Your task to perform on an android device: change notifications settings Image 0: 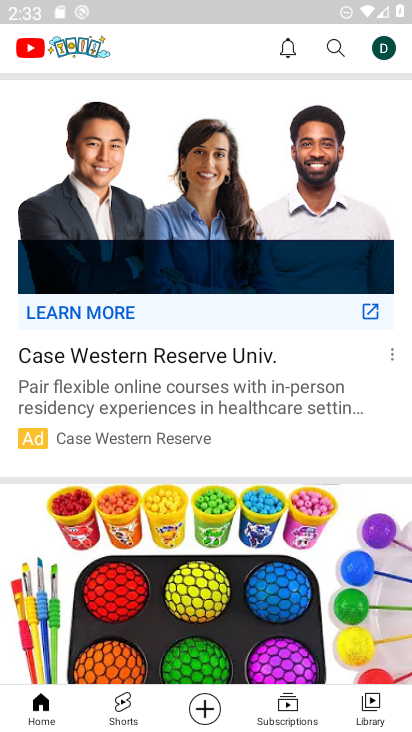
Step 0: press home button
Your task to perform on an android device: change notifications settings Image 1: 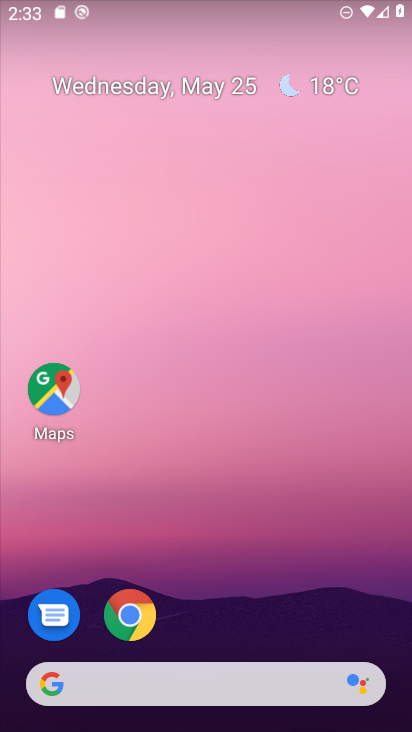
Step 1: drag from (245, 578) to (283, 33)
Your task to perform on an android device: change notifications settings Image 2: 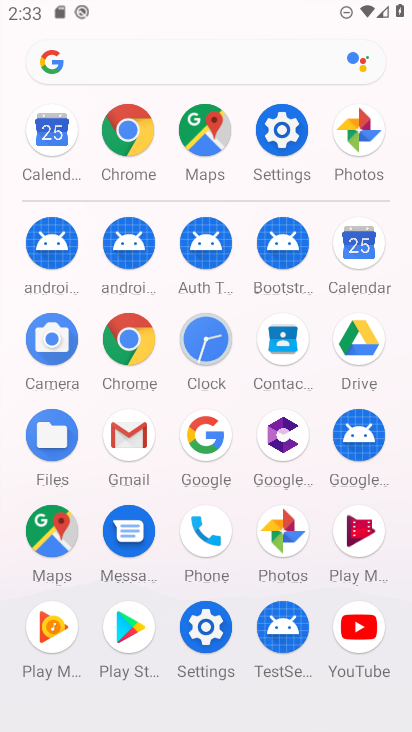
Step 2: click (283, 114)
Your task to perform on an android device: change notifications settings Image 3: 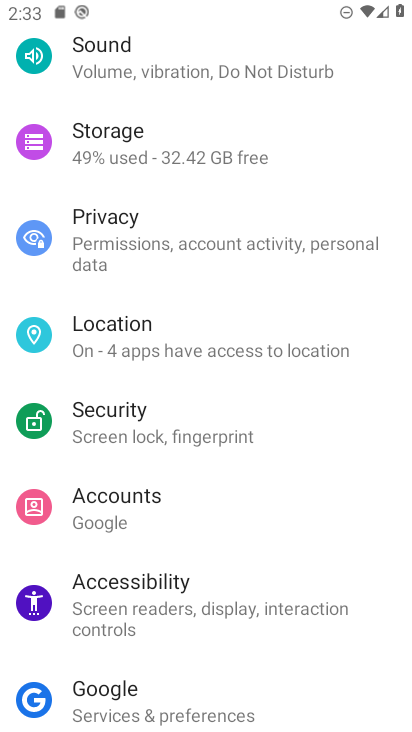
Step 3: drag from (240, 405) to (211, 652)
Your task to perform on an android device: change notifications settings Image 4: 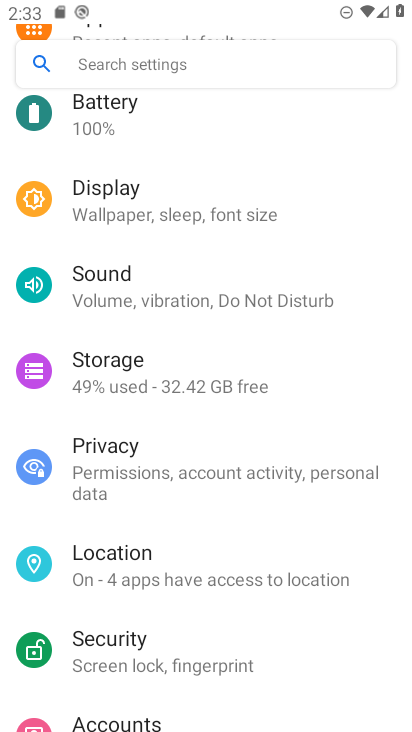
Step 4: drag from (244, 278) to (219, 573)
Your task to perform on an android device: change notifications settings Image 5: 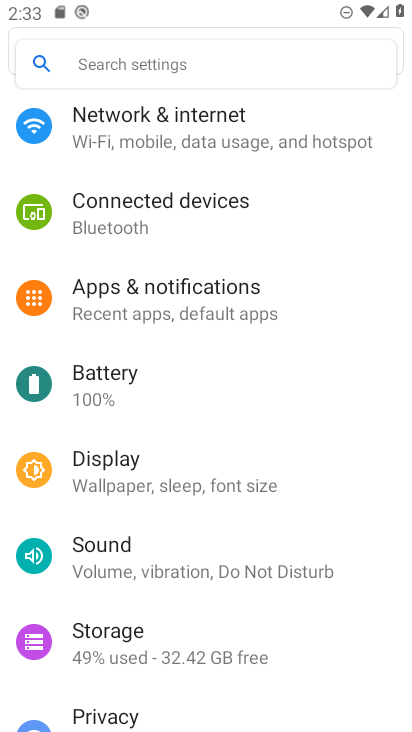
Step 5: click (246, 306)
Your task to perform on an android device: change notifications settings Image 6: 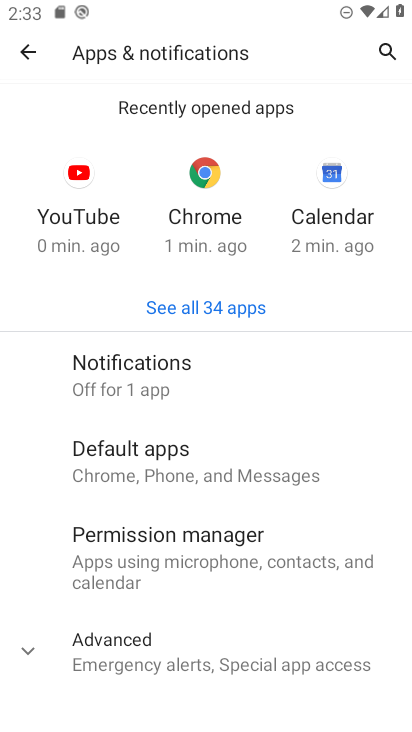
Step 6: click (246, 387)
Your task to perform on an android device: change notifications settings Image 7: 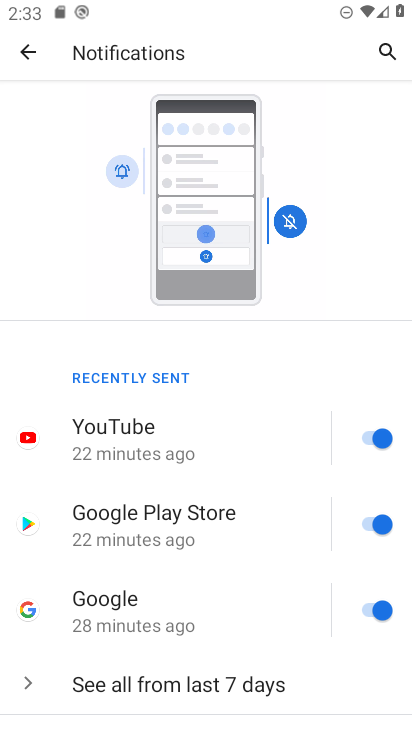
Step 7: click (218, 677)
Your task to perform on an android device: change notifications settings Image 8: 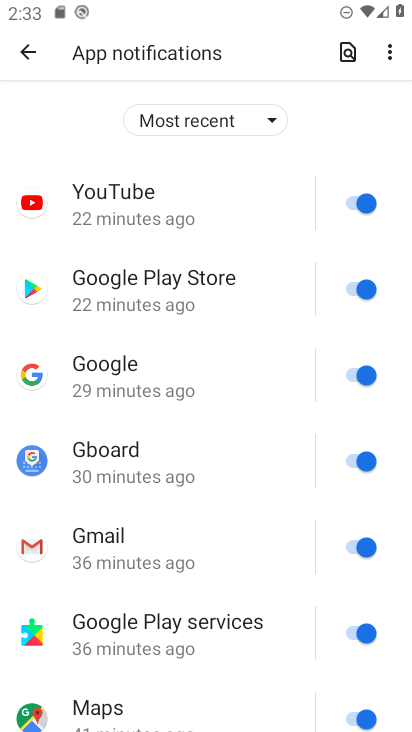
Step 8: click (362, 198)
Your task to perform on an android device: change notifications settings Image 9: 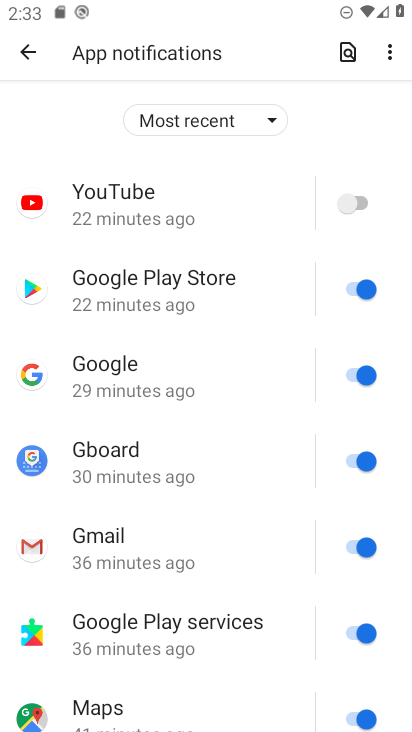
Step 9: click (358, 283)
Your task to perform on an android device: change notifications settings Image 10: 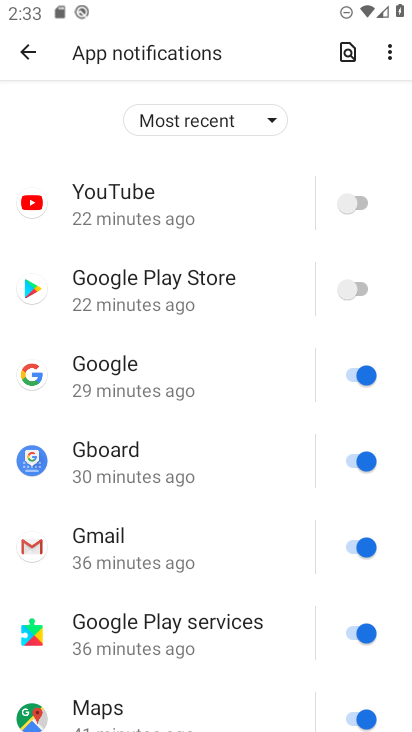
Step 10: click (363, 377)
Your task to perform on an android device: change notifications settings Image 11: 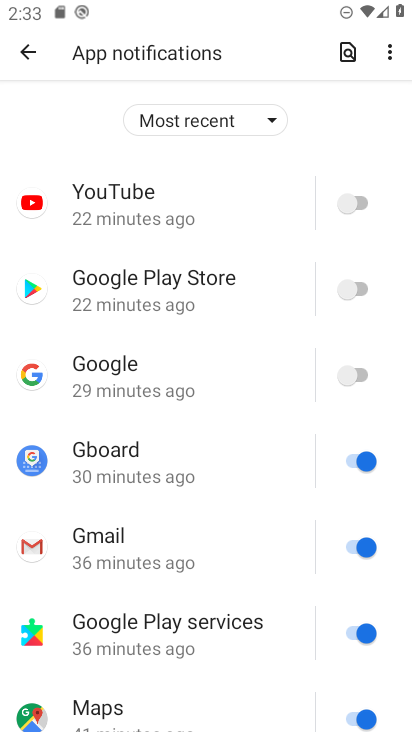
Step 11: click (362, 460)
Your task to perform on an android device: change notifications settings Image 12: 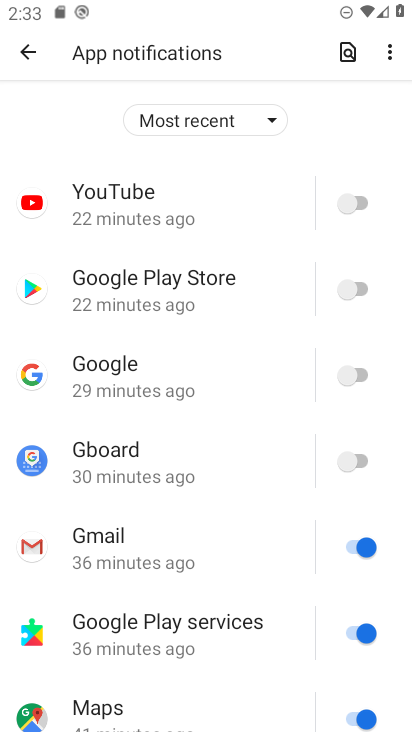
Step 12: click (357, 543)
Your task to perform on an android device: change notifications settings Image 13: 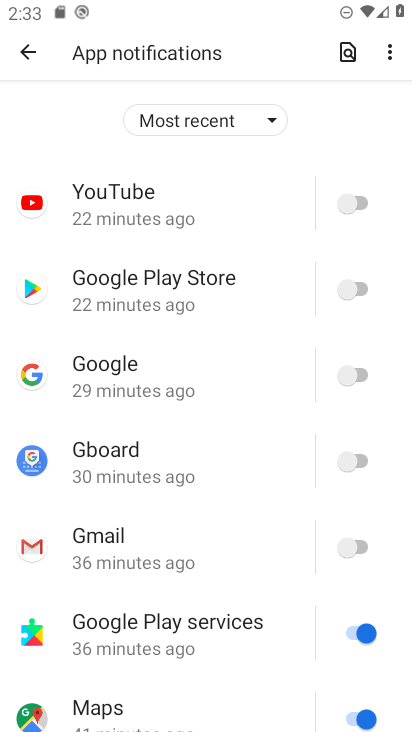
Step 13: drag from (232, 598) to (277, 61)
Your task to perform on an android device: change notifications settings Image 14: 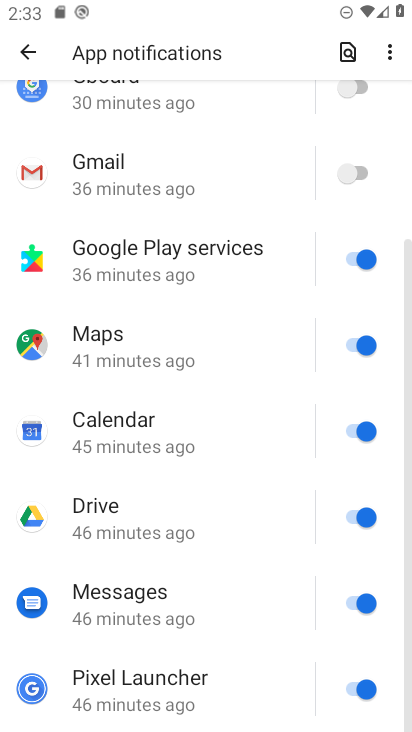
Step 14: click (354, 250)
Your task to perform on an android device: change notifications settings Image 15: 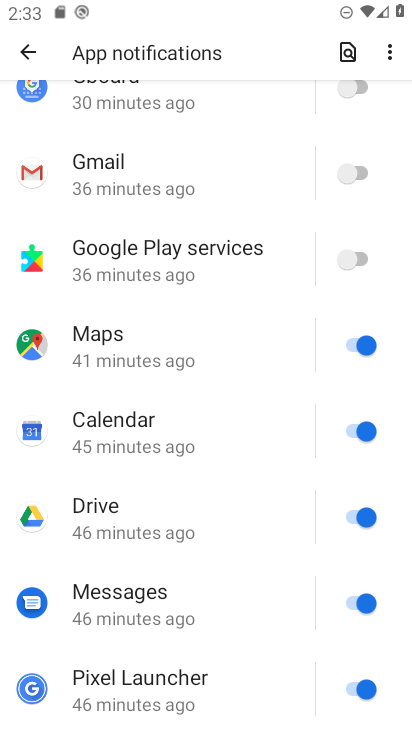
Step 15: click (351, 333)
Your task to perform on an android device: change notifications settings Image 16: 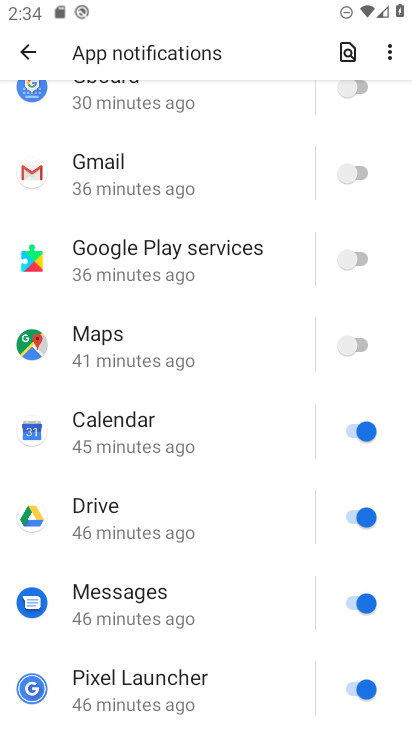
Step 16: click (362, 410)
Your task to perform on an android device: change notifications settings Image 17: 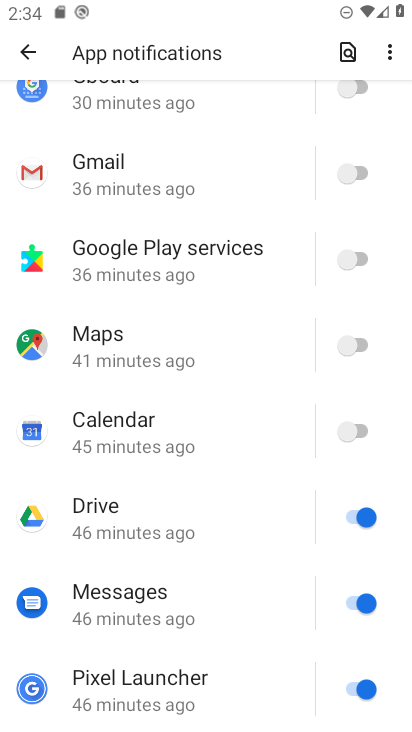
Step 17: click (357, 517)
Your task to perform on an android device: change notifications settings Image 18: 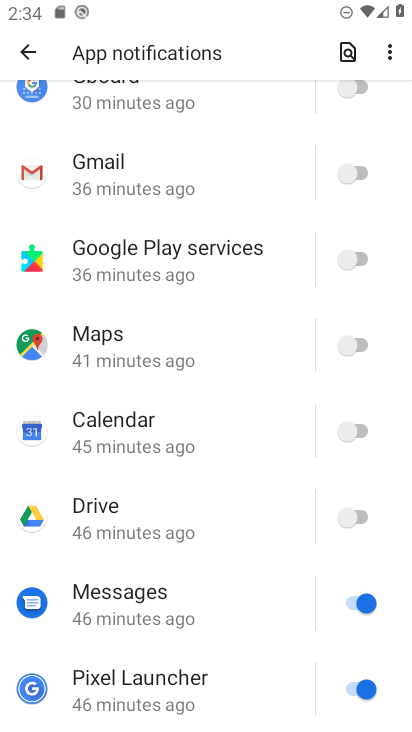
Step 18: click (358, 595)
Your task to perform on an android device: change notifications settings Image 19: 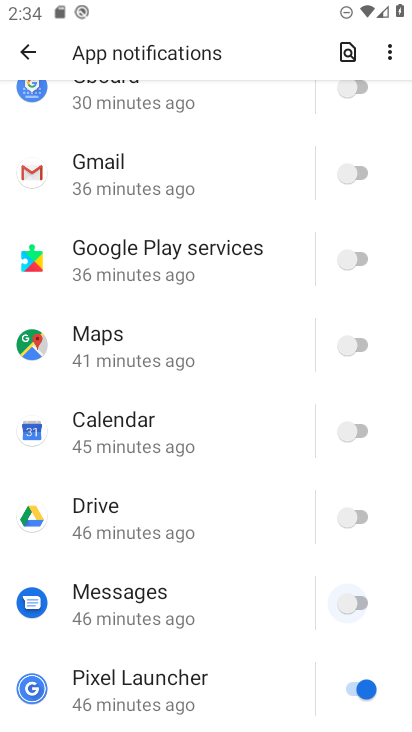
Step 19: click (360, 683)
Your task to perform on an android device: change notifications settings Image 20: 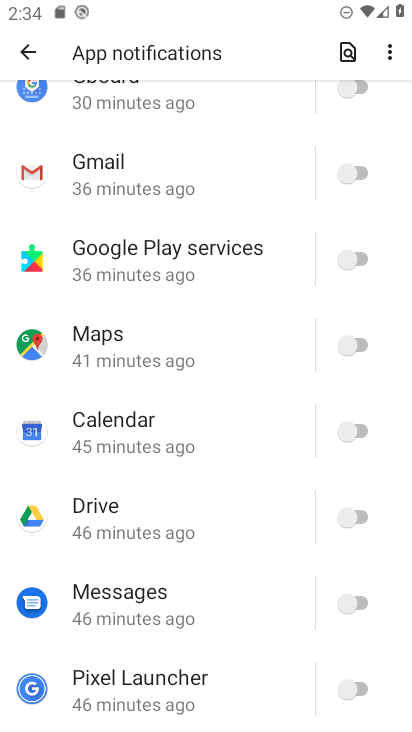
Step 20: task complete